Your task to perform on an android device: Go to Wikipedia Image 0: 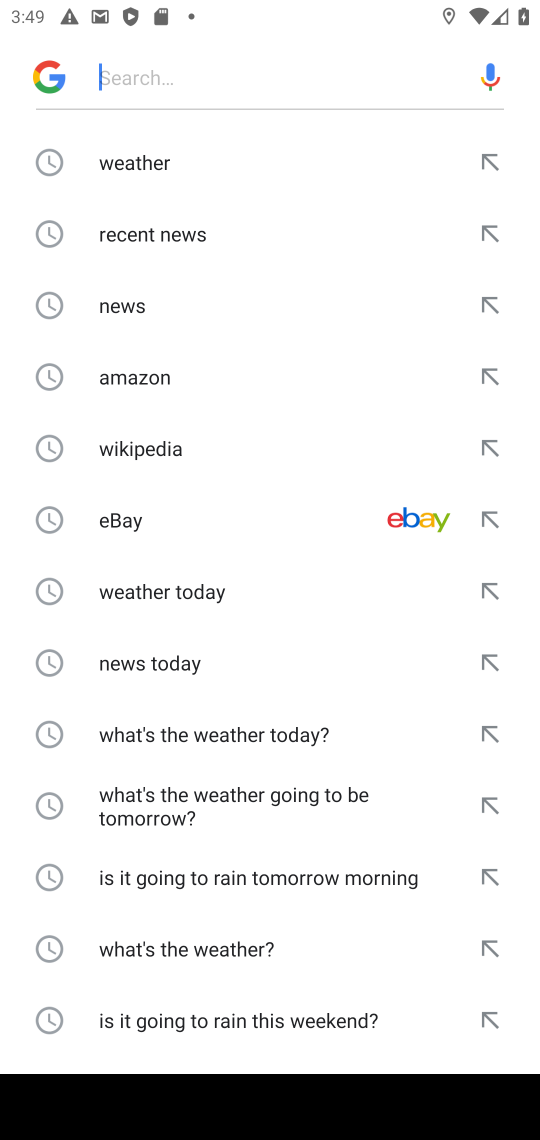
Step 0: press home button
Your task to perform on an android device: Go to Wikipedia Image 1: 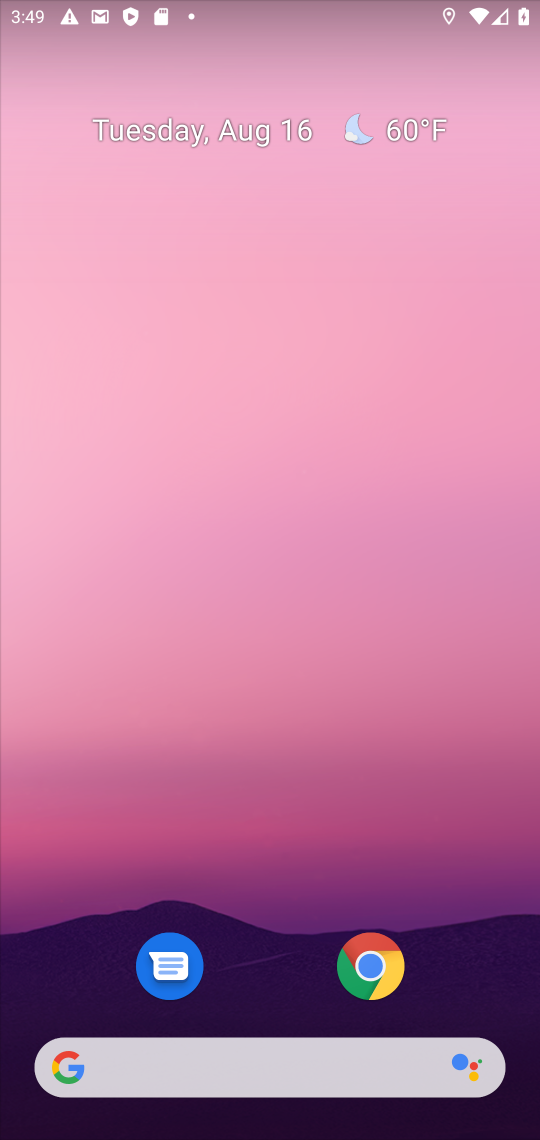
Step 1: click (150, 1047)
Your task to perform on an android device: Go to Wikipedia Image 2: 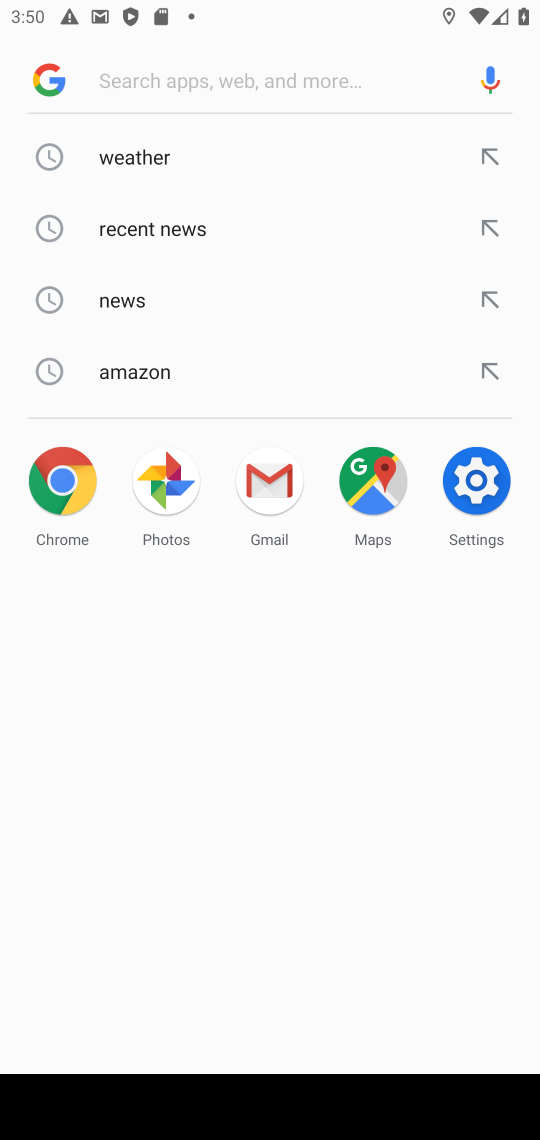
Step 2: type "Wikipedia"
Your task to perform on an android device: Go to Wikipedia Image 3: 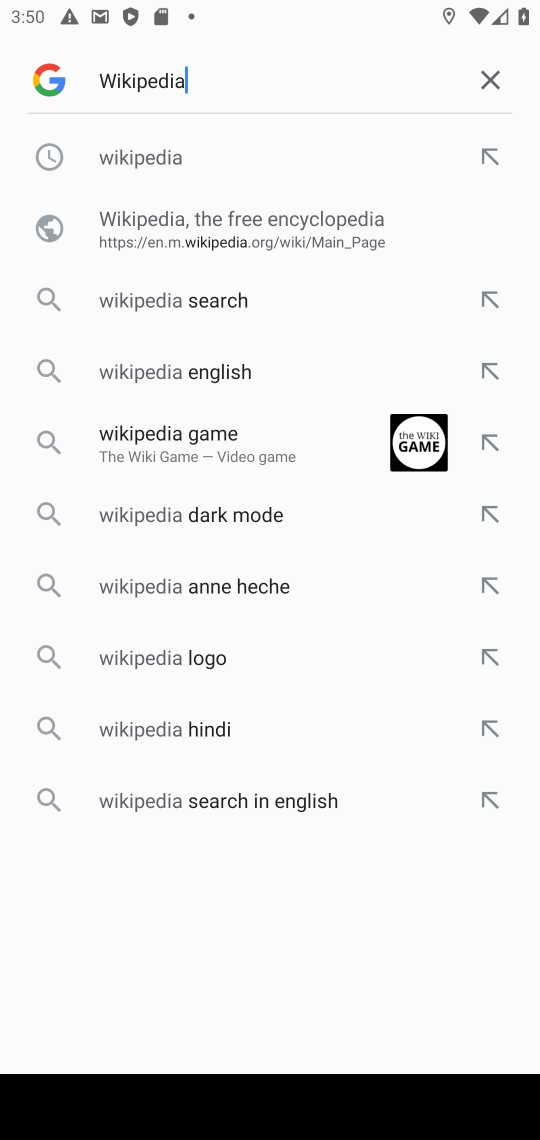
Step 3: click (148, 159)
Your task to perform on an android device: Go to Wikipedia Image 4: 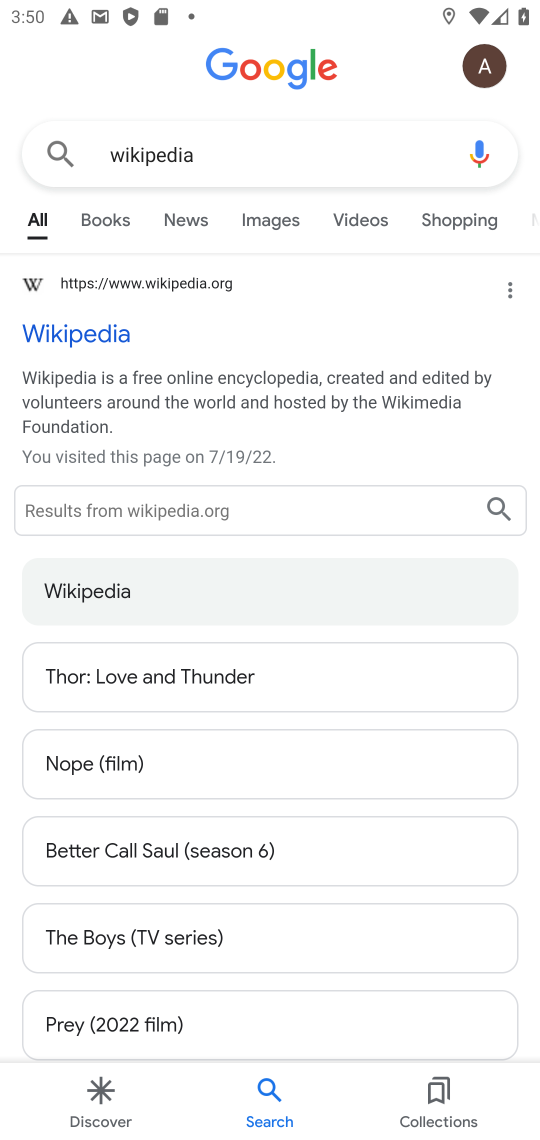
Step 4: task complete